Your task to perform on an android device: Is it going to rain today? Image 0: 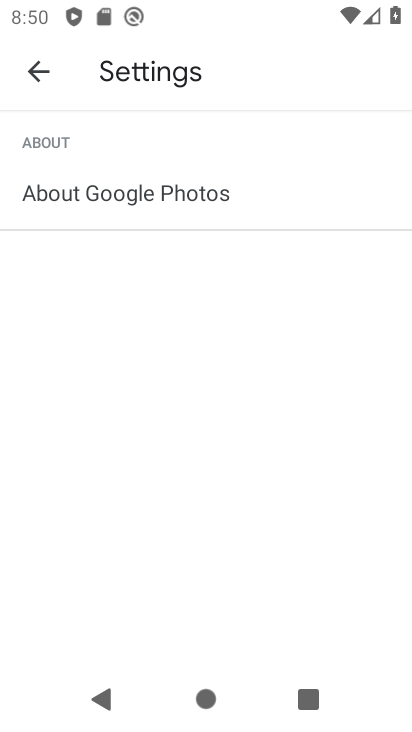
Step 0: press home button
Your task to perform on an android device: Is it going to rain today? Image 1: 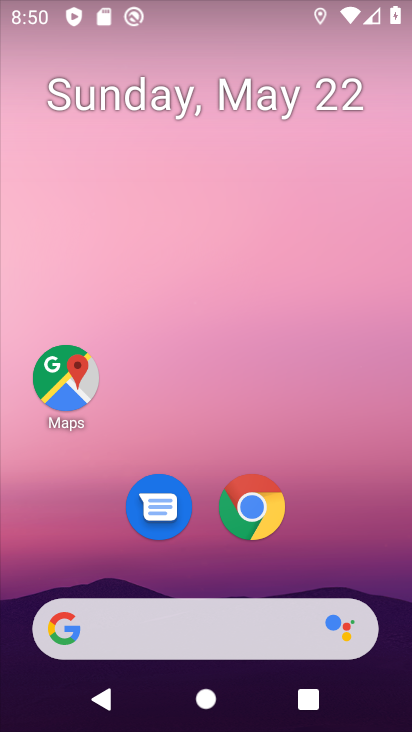
Step 1: click (206, 599)
Your task to perform on an android device: Is it going to rain today? Image 2: 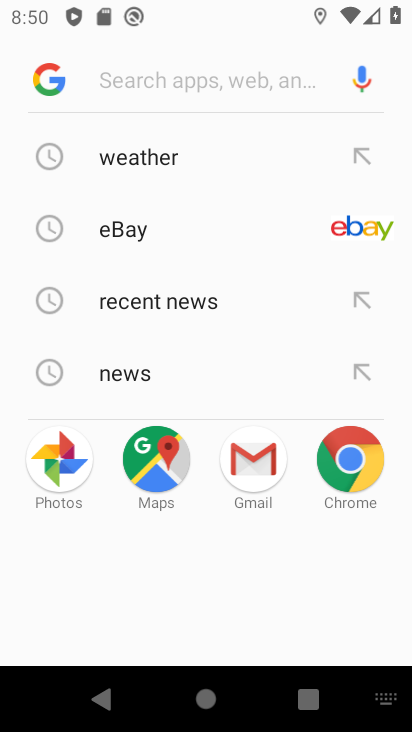
Step 2: click (129, 151)
Your task to perform on an android device: Is it going to rain today? Image 3: 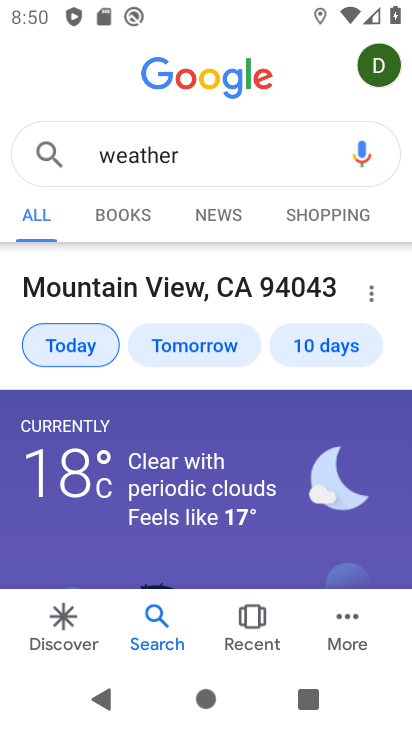
Step 3: task complete